Your task to perform on an android device: What's on my calendar today? Image 0: 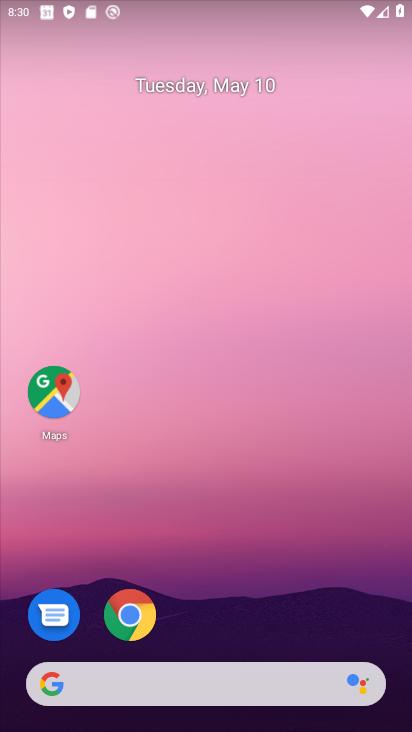
Step 0: press home button
Your task to perform on an android device: What's on my calendar today? Image 1: 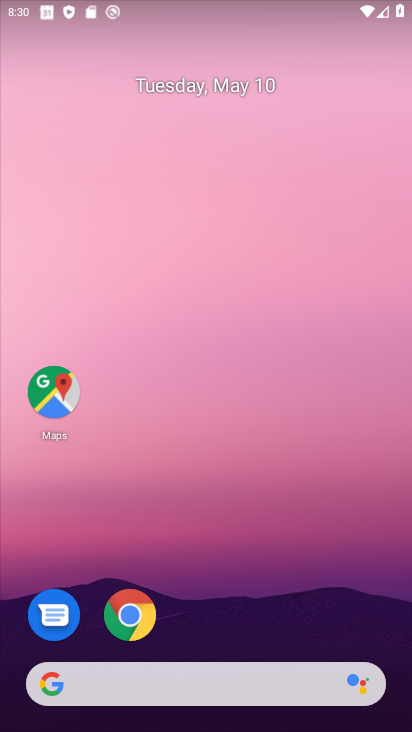
Step 1: click (261, 246)
Your task to perform on an android device: What's on my calendar today? Image 2: 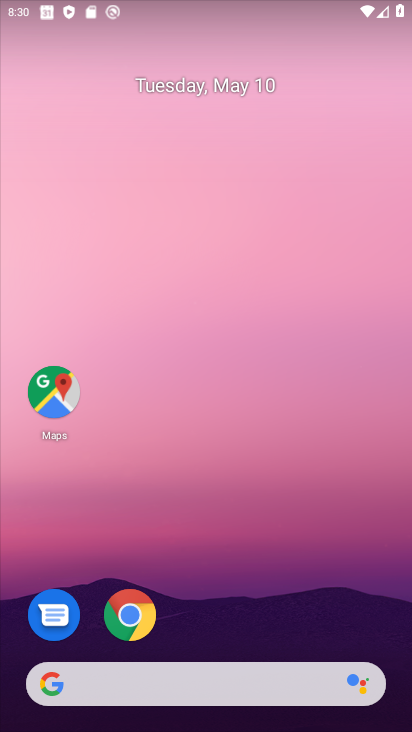
Step 2: drag from (219, 633) to (262, 135)
Your task to perform on an android device: What's on my calendar today? Image 3: 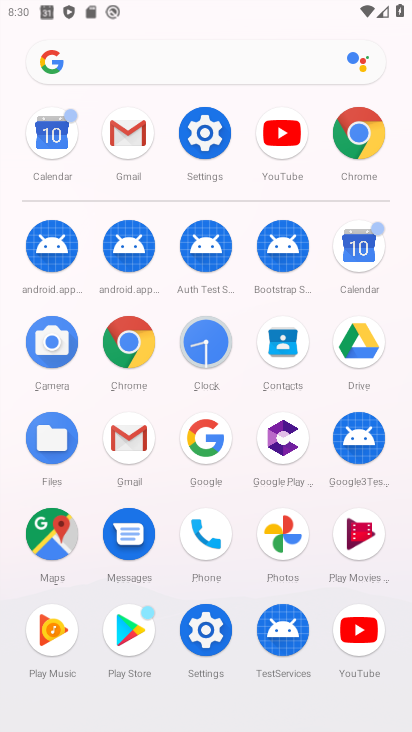
Step 3: drag from (250, 682) to (256, 265)
Your task to perform on an android device: What's on my calendar today? Image 4: 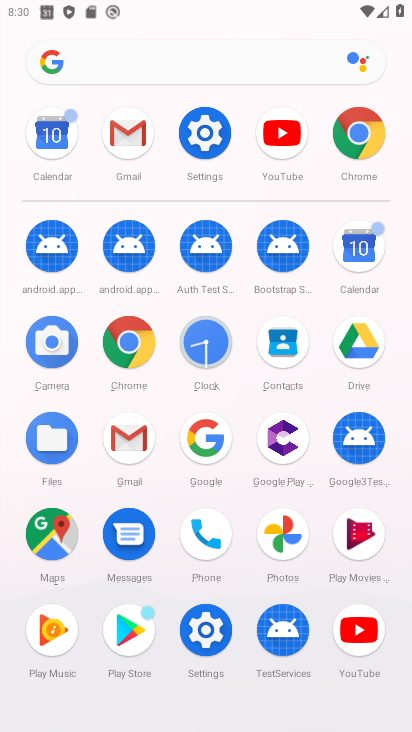
Step 4: drag from (237, 659) to (208, 323)
Your task to perform on an android device: What's on my calendar today? Image 5: 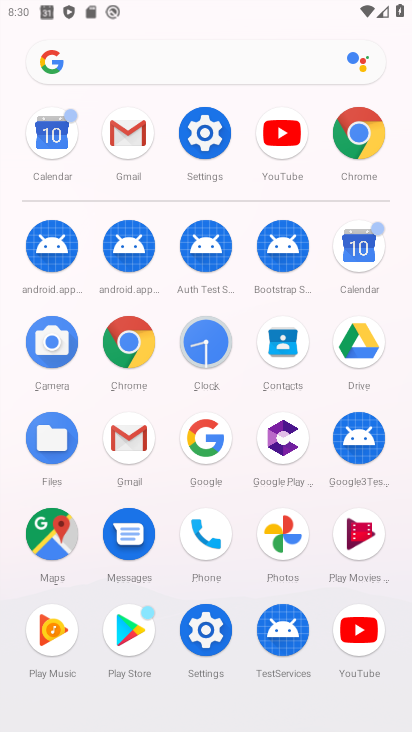
Step 5: click (362, 250)
Your task to perform on an android device: What's on my calendar today? Image 6: 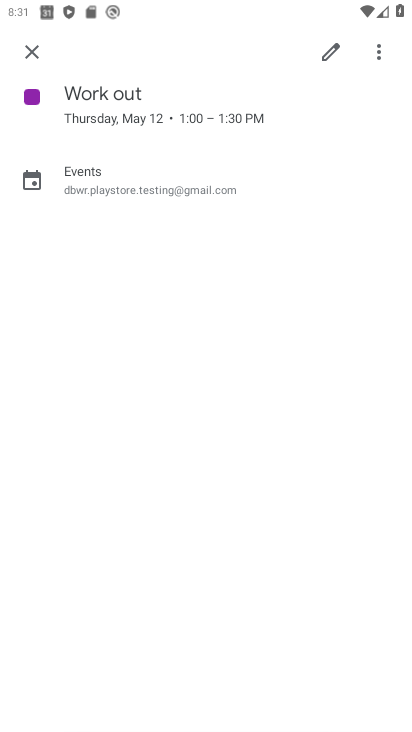
Step 6: click (40, 54)
Your task to perform on an android device: What's on my calendar today? Image 7: 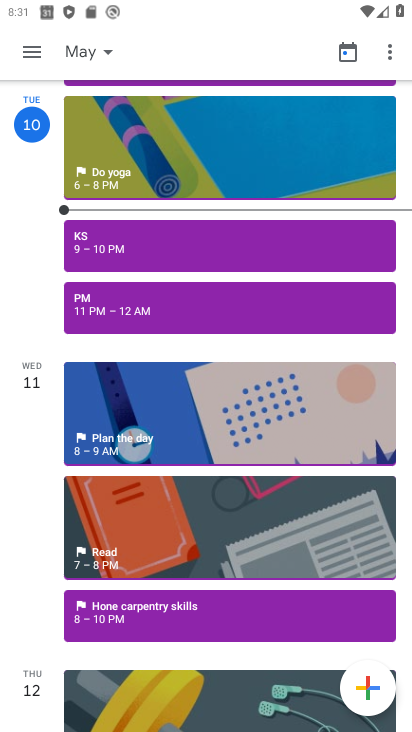
Step 7: click (92, 56)
Your task to perform on an android device: What's on my calendar today? Image 8: 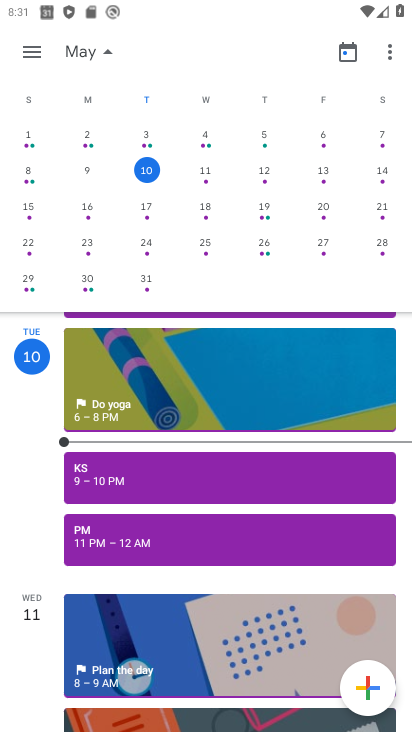
Step 8: click (142, 173)
Your task to perform on an android device: What's on my calendar today? Image 9: 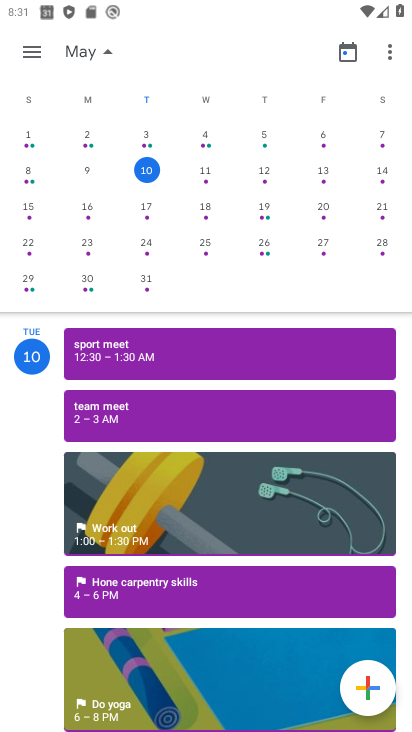
Step 9: task complete